Your task to perform on an android device: turn off sleep mode Image 0: 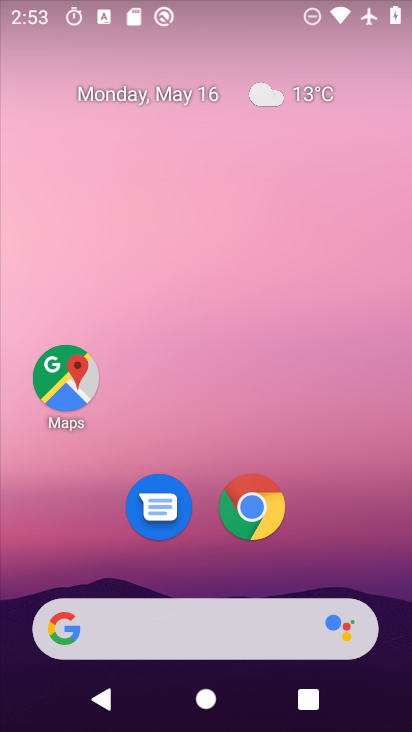
Step 0: drag from (214, 576) to (253, 158)
Your task to perform on an android device: turn off sleep mode Image 1: 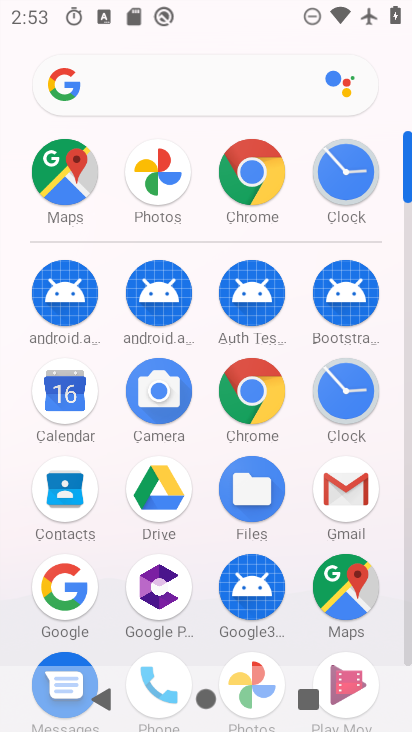
Step 1: drag from (194, 259) to (210, 50)
Your task to perform on an android device: turn off sleep mode Image 2: 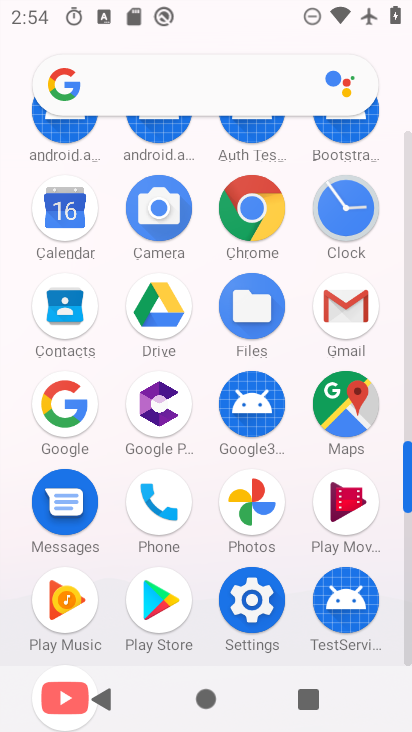
Step 2: click (253, 619)
Your task to perform on an android device: turn off sleep mode Image 3: 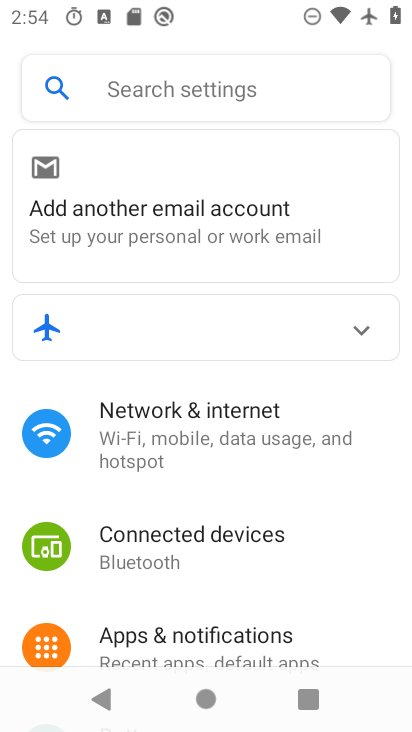
Step 3: task complete